Your task to perform on an android device: Open calendar and show me the first week of next month Image 0: 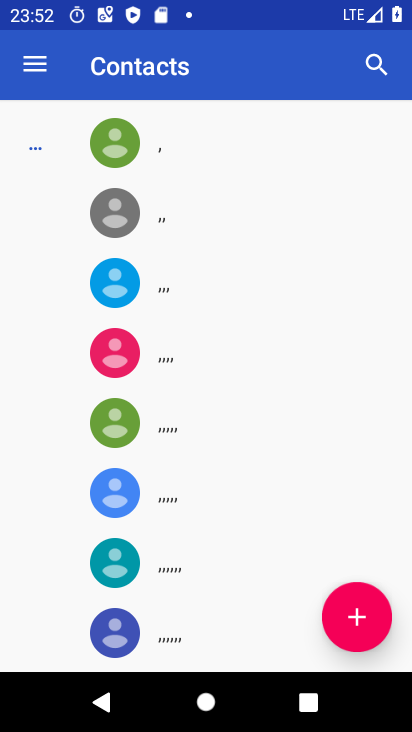
Step 0: press home button
Your task to perform on an android device: Open calendar and show me the first week of next month Image 1: 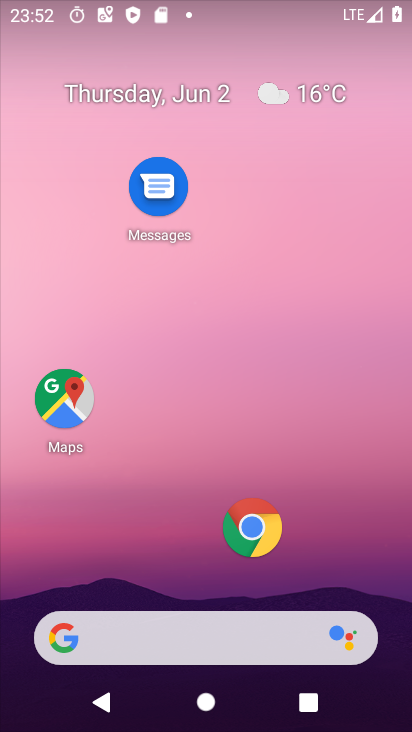
Step 1: drag from (207, 575) to (215, 56)
Your task to perform on an android device: Open calendar and show me the first week of next month Image 2: 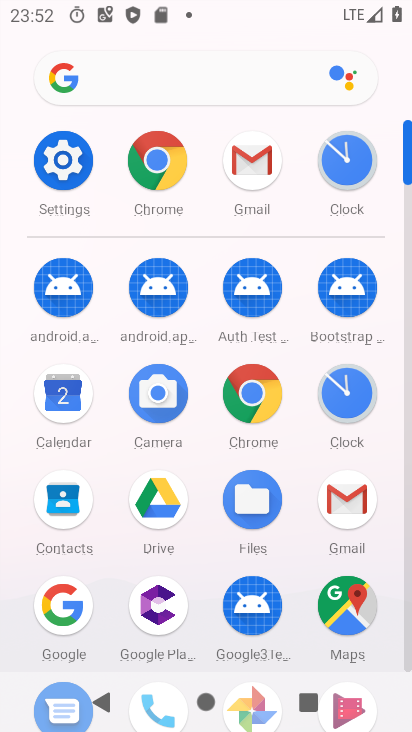
Step 2: click (63, 390)
Your task to perform on an android device: Open calendar and show me the first week of next month Image 3: 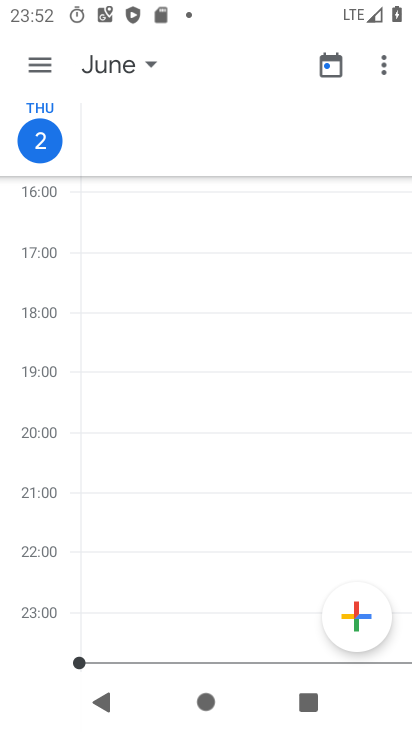
Step 3: click (144, 67)
Your task to perform on an android device: Open calendar and show me the first week of next month Image 4: 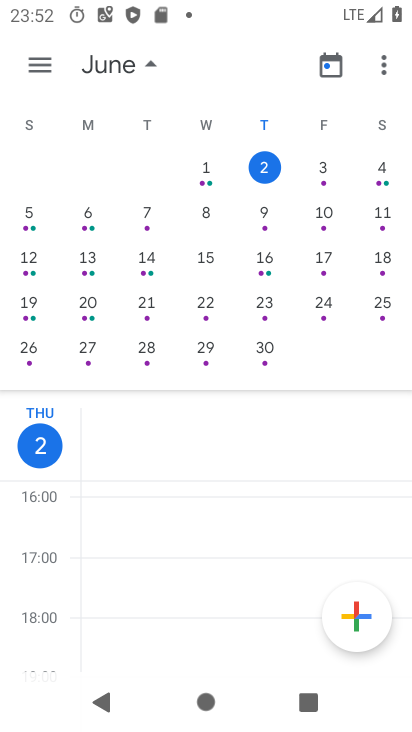
Step 4: drag from (382, 252) to (0, 328)
Your task to perform on an android device: Open calendar and show me the first week of next month Image 5: 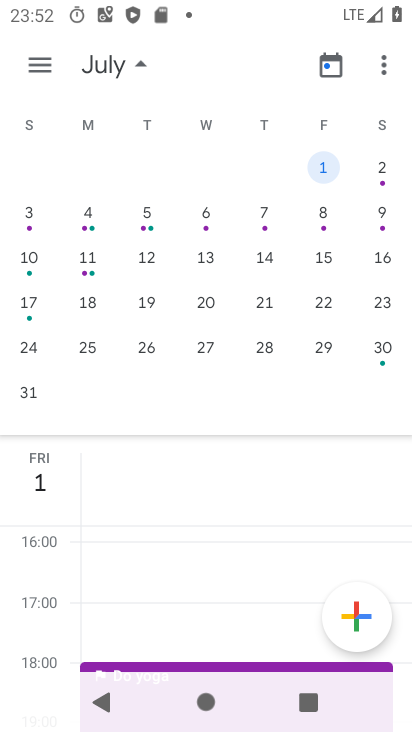
Step 5: click (33, 213)
Your task to perform on an android device: Open calendar and show me the first week of next month Image 6: 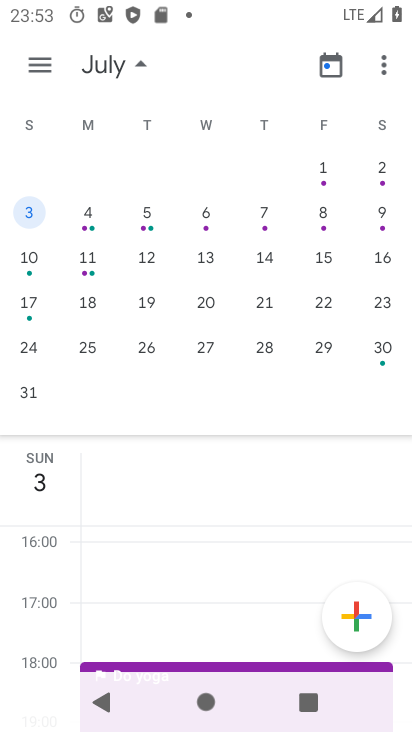
Step 6: click (140, 62)
Your task to perform on an android device: Open calendar and show me the first week of next month Image 7: 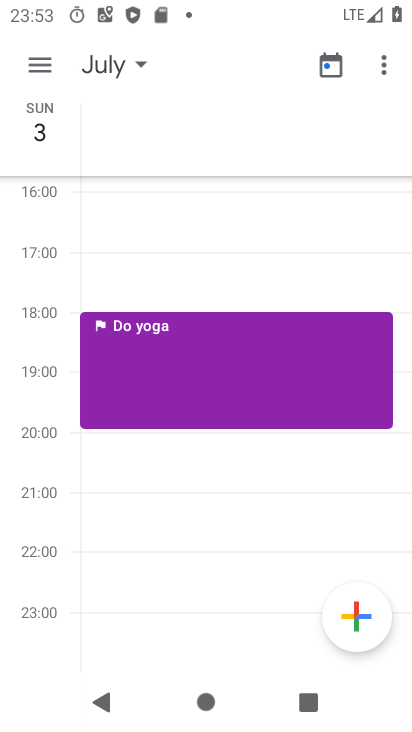
Step 7: drag from (44, 504) to (74, 138)
Your task to perform on an android device: Open calendar and show me the first week of next month Image 8: 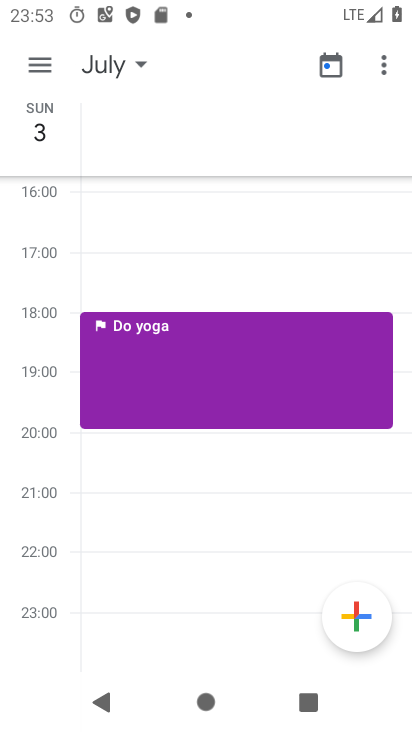
Step 8: click (69, 133)
Your task to perform on an android device: Open calendar and show me the first week of next month Image 9: 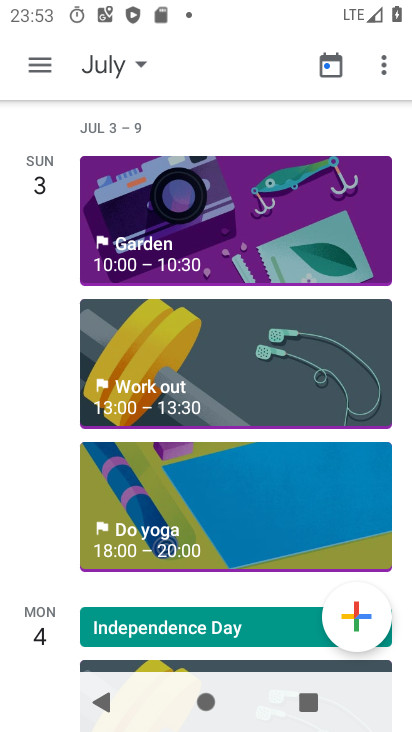
Step 9: task complete